Your task to perform on an android device: Open Chrome and go to the settings page Image 0: 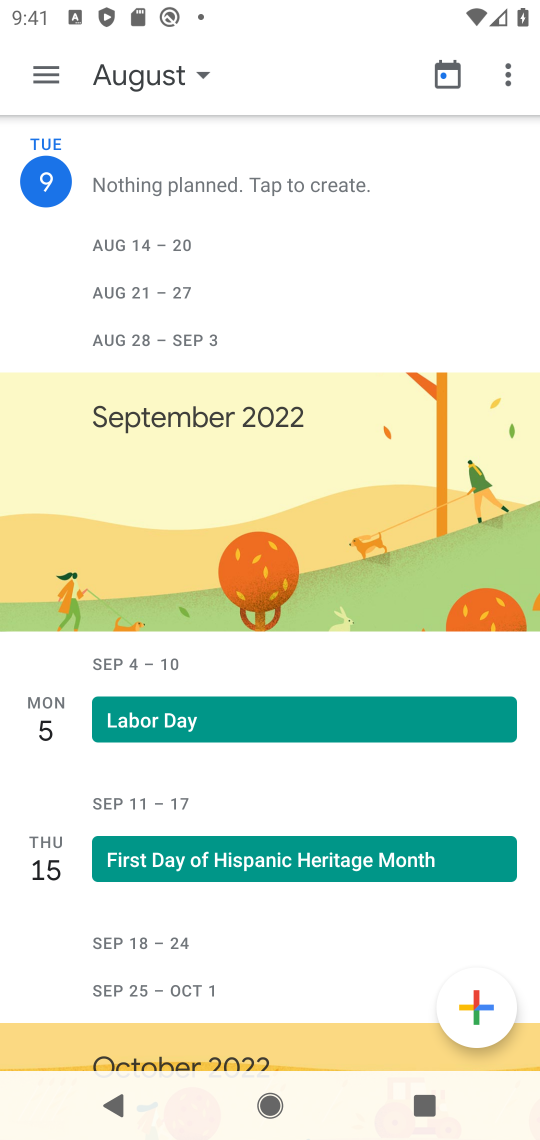
Step 0: press home button
Your task to perform on an android device: Open Chrome and go to the settings page Image 1: 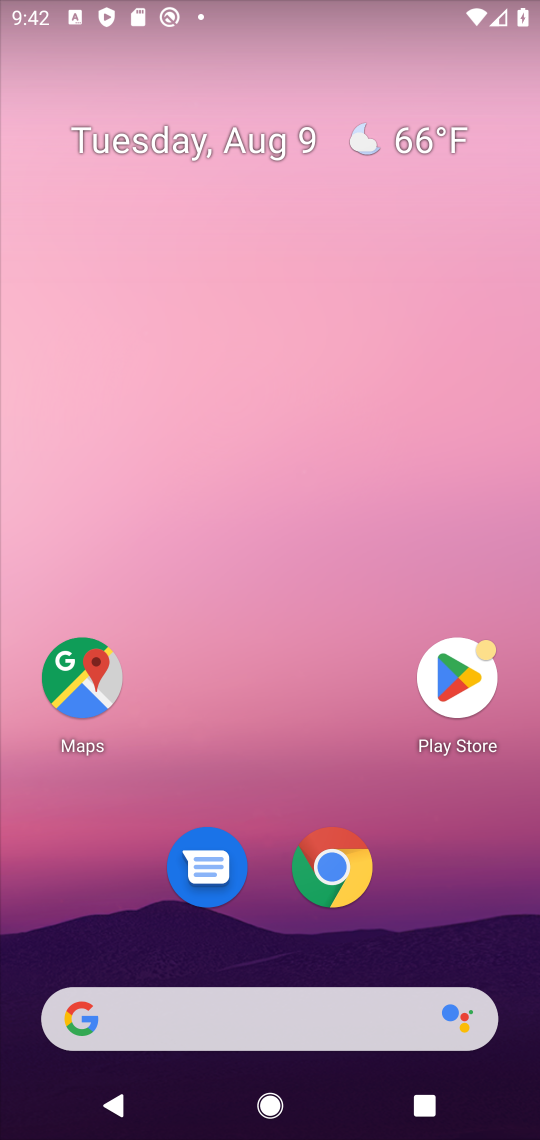
Step 1: click (336, 899)
Your task to perform on an android device: Open Chrome and go to the settings page Image 2: 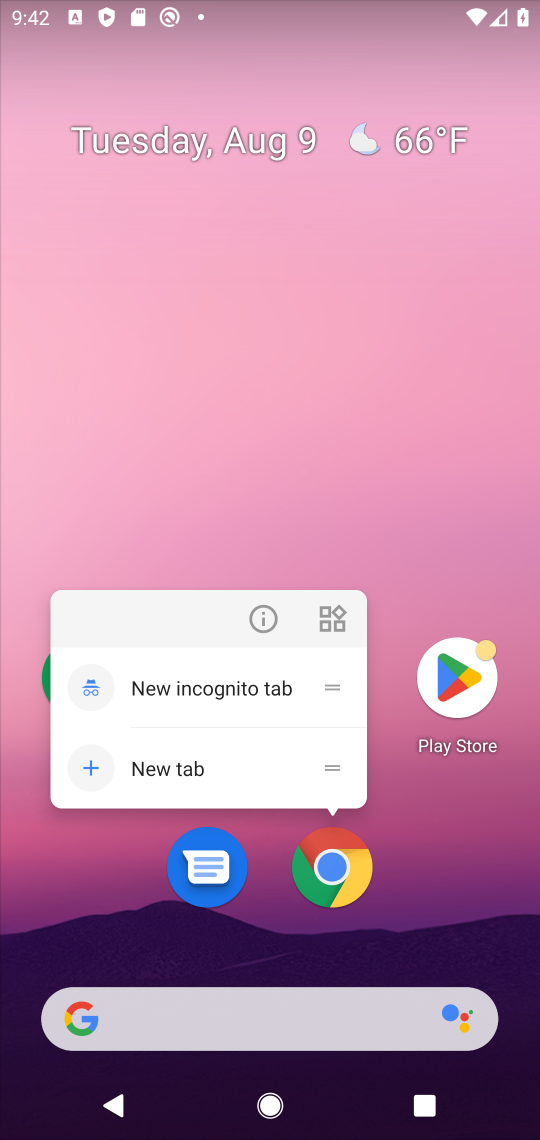
Step 2: click (307, 861)
Your task to perform on an android device: Open Chrome and go to the settings page Image 3: 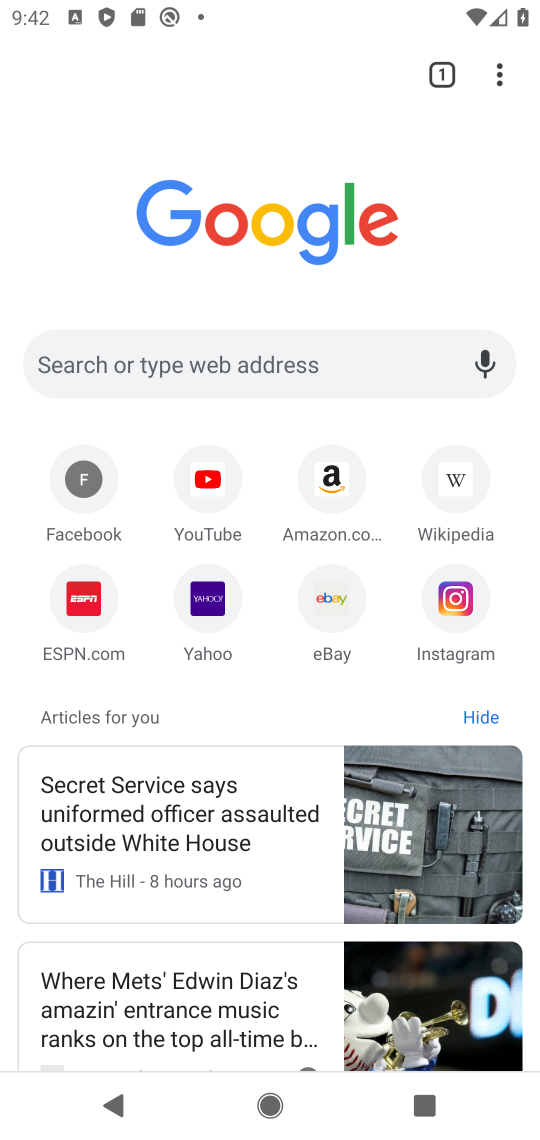
Step 3: click (484, 75)
Your task to perform on an android device: Open Chrome and go to the settings page Image 4: 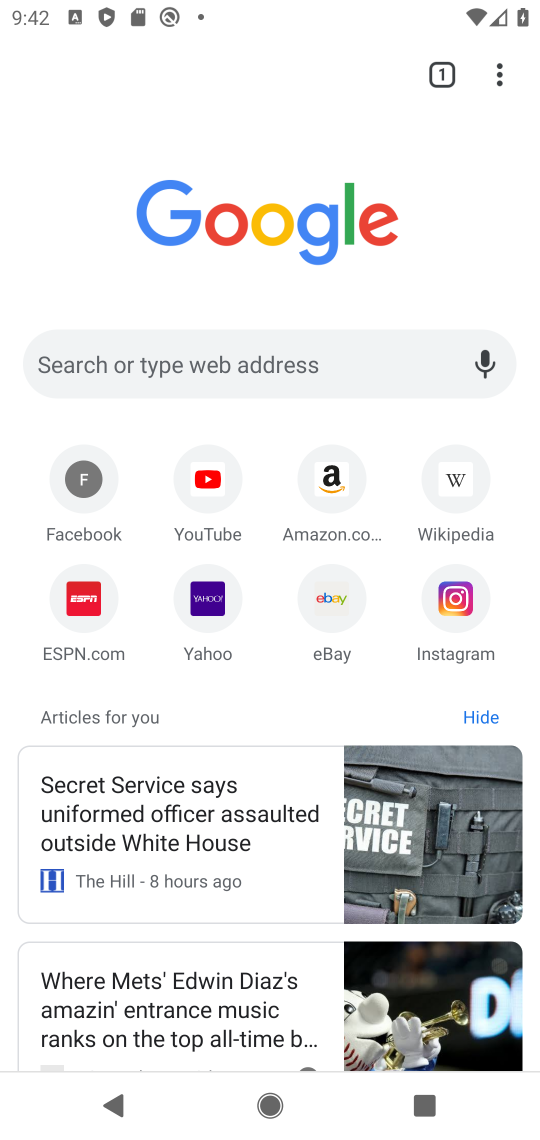
Step 4: click (491, 77)
Your task to perform on an android device: Open Chrome and go to the settings page Image 5: 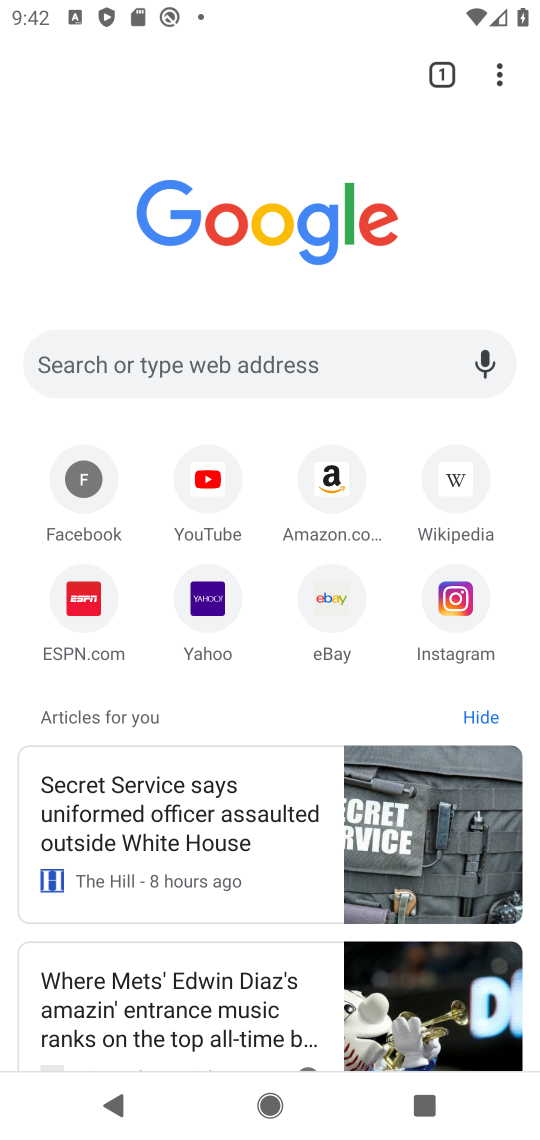
Step 5: click (489, 70)
Your task to perform on an android device: Open Chrome and go to the settings page Image 6: 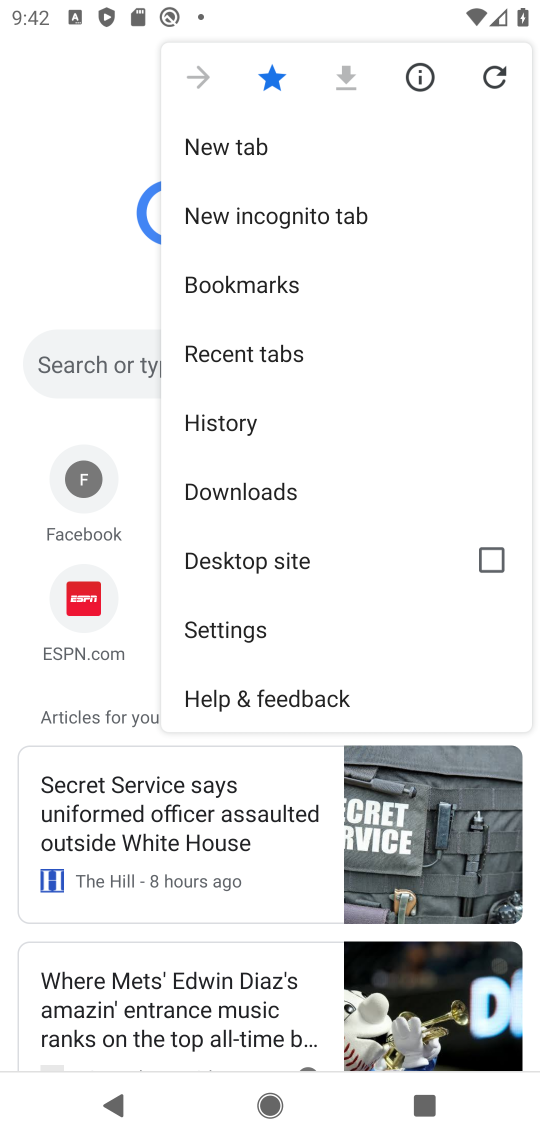
Step 6: click (275, 615)
Your task to perform on an android device: Open Chrome and go to the settings page Image 7: 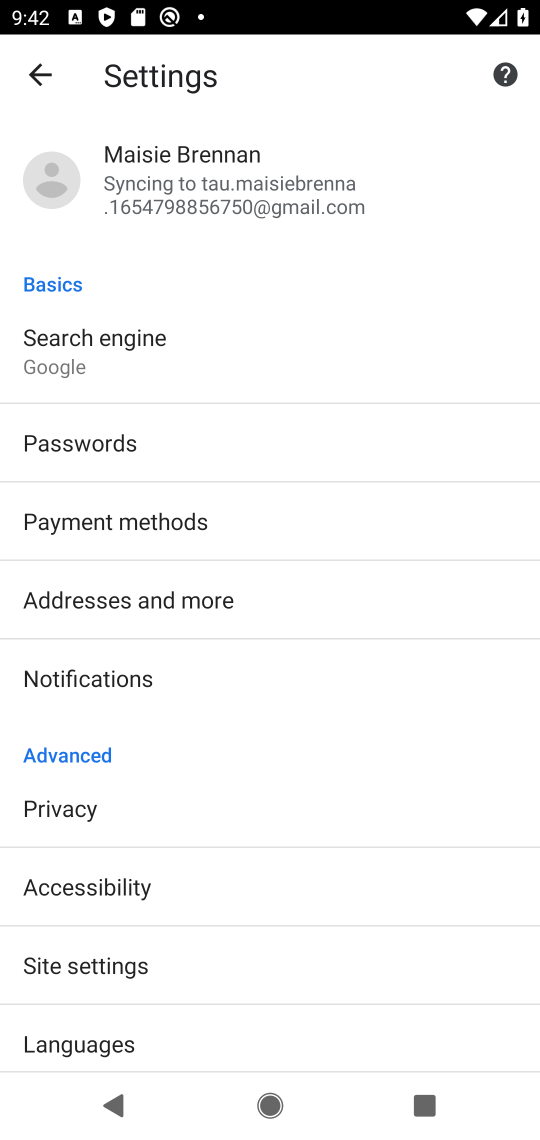
Step 7: task complete